Your task to perform on an android device: Go to privacy settings Image 0: 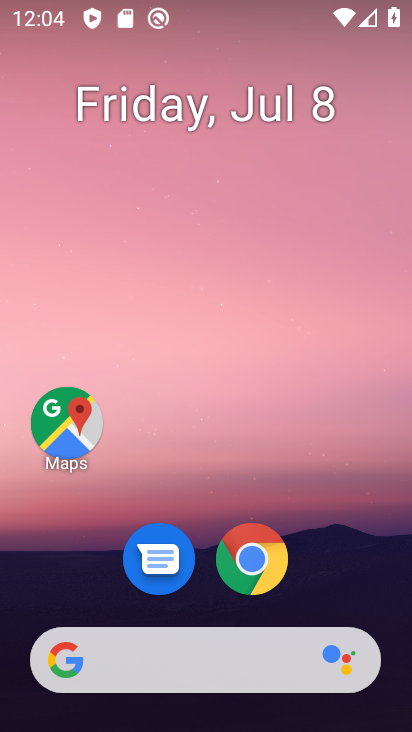
Step 0: drag from (223, 598) to (241, 11)
Your task to perform on an android device: Go to privacy settings Image 1: 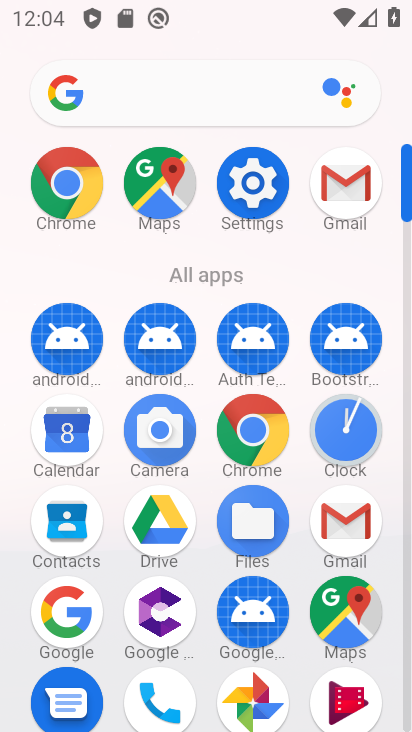
Step 1: click (269, 196)
Your task to perform on an android device: Go to privacy settings Image 2: 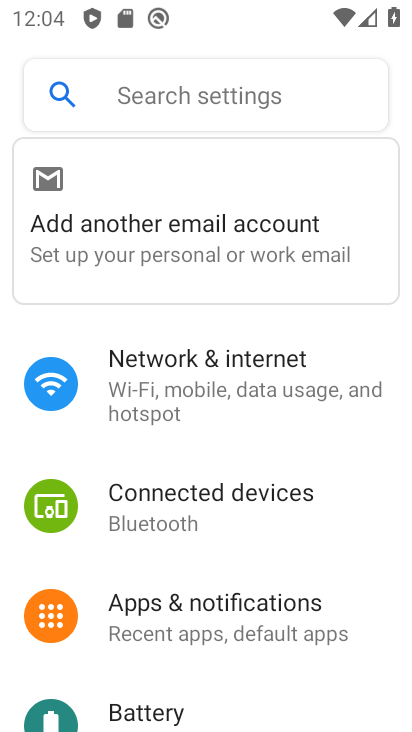
Step 2: drag from (134, 677) to (108, 271)
Your task to perform on an android device: Go to privacy settings Image 3: 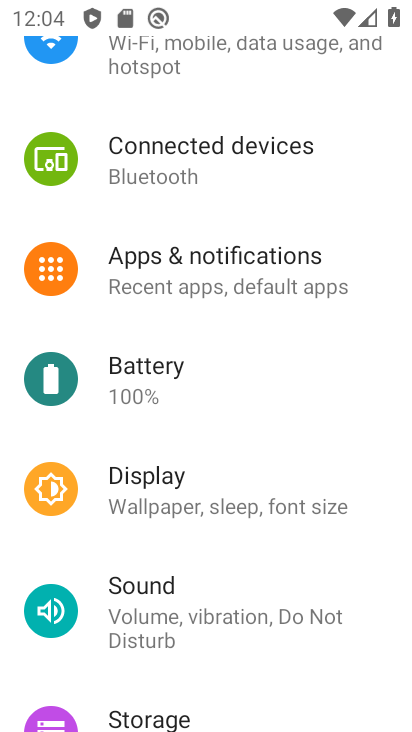
Step 3: drag from (173, 618) to (151, 214)
Your task to perform on an android device: Go to privacy settings Image 4: 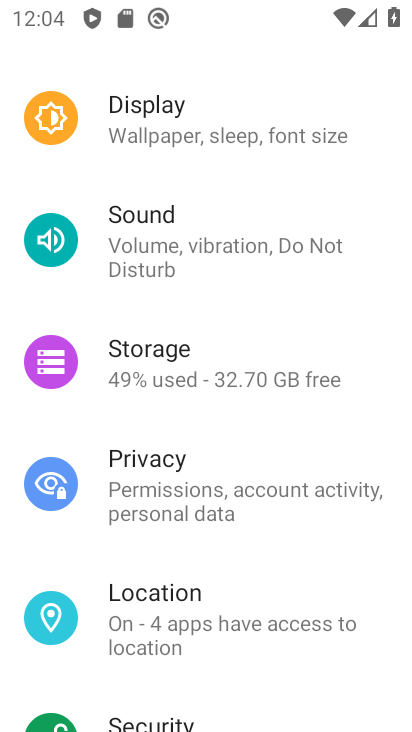
Step 4: click (176, 474)
Your task to perform on an android device: Go to privacy settings Image 5: 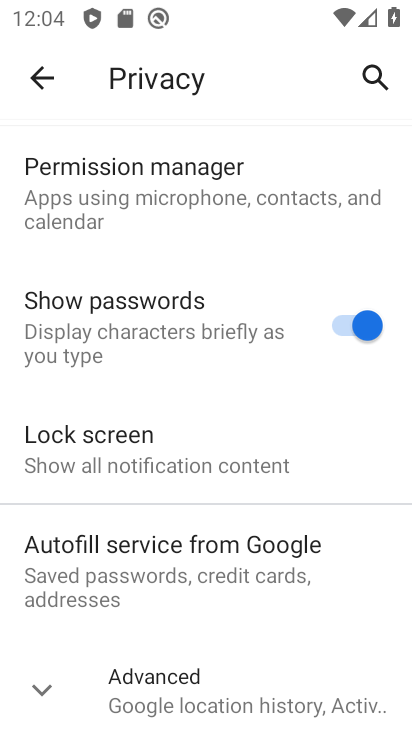
Step 5: task complete